Your task to perform on an android device: Open the map Image 0: 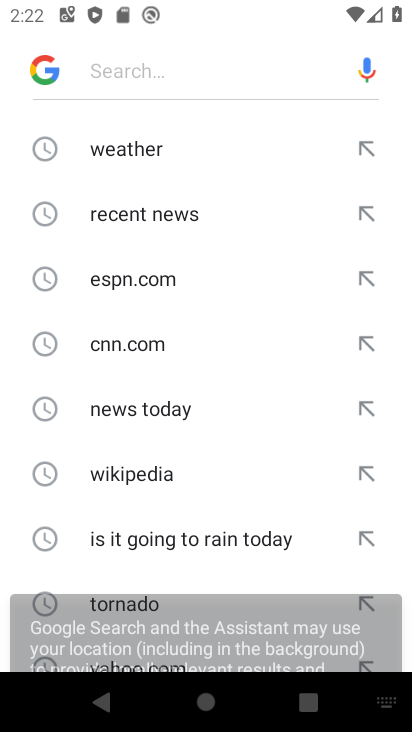
Step 0: press home button
Your task to perform on an android device: Open the map Image 1: 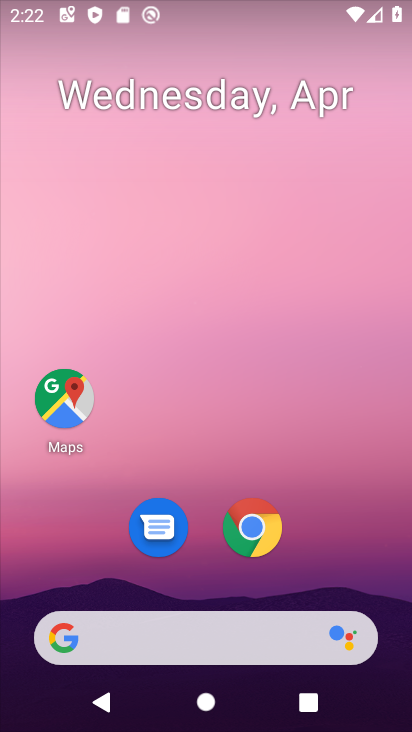
Step 1: click (77, 390)
Your task to perform on an android device: Open the map Image 2: 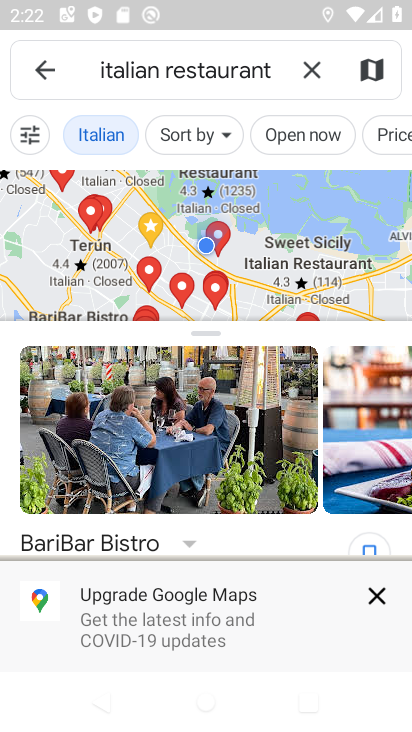
Step 2: task complete